Your task to perform on an android device: open sync settings in chrome Image 0: 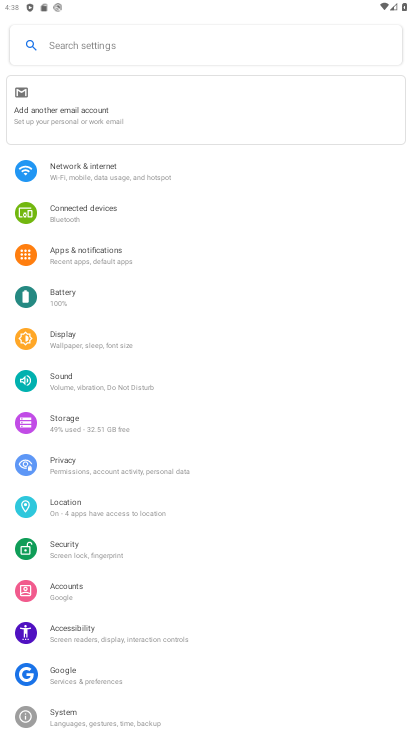
Step 0: press home button
Your task to perform on an android device: open sync settings in chrome Image 1: 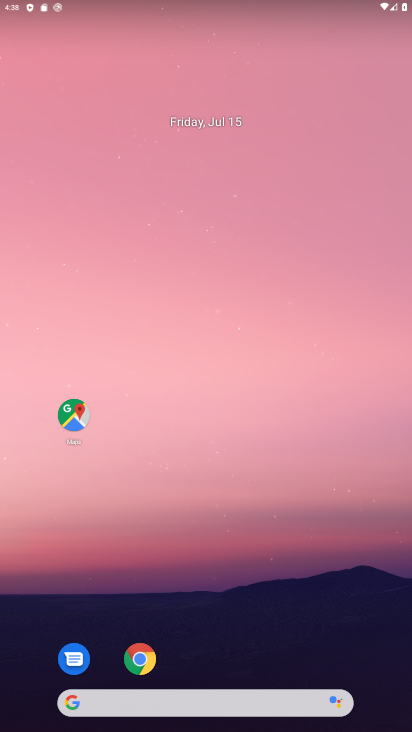
Step 1: click (145, 659)
Your task to perform on an android device: open sync settings in chrome Image 2: 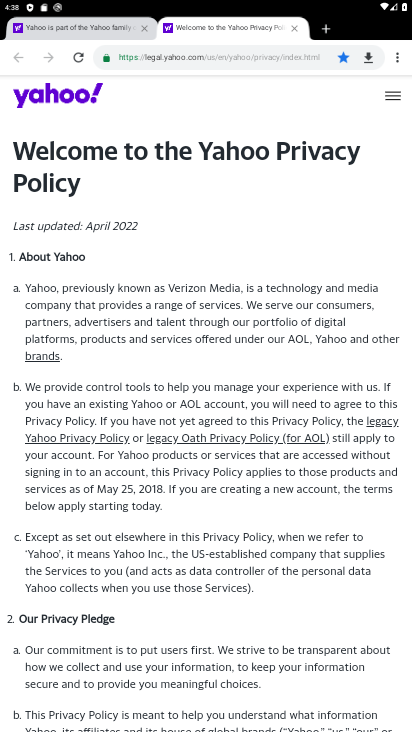
Step 2: click (393, 63)
Your task to perform on an android device: open sync settings in chrome Image 3: 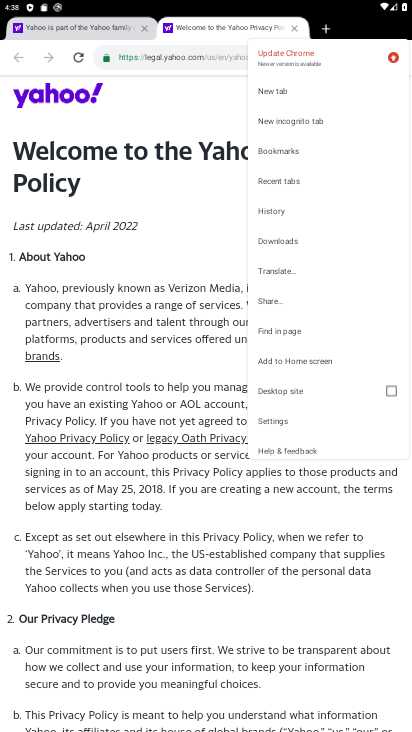
Step 3: click (278, 418)
Your task to perform on an android device: open sync settings in chrome Image 4: 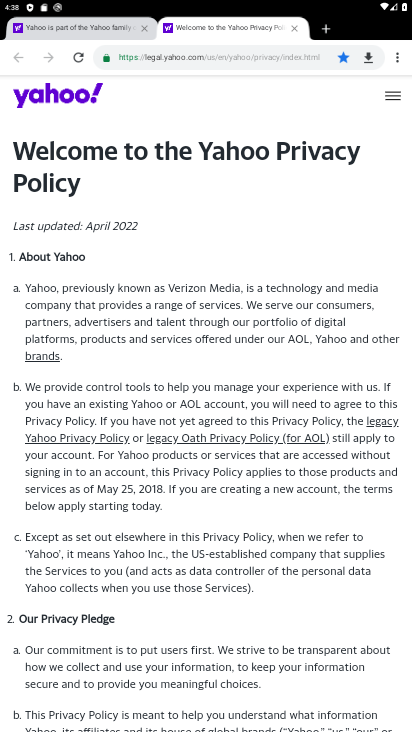
Step 4: click (278, 418)
Your task to perform on an android device: open sync settings in chrome Image 5: 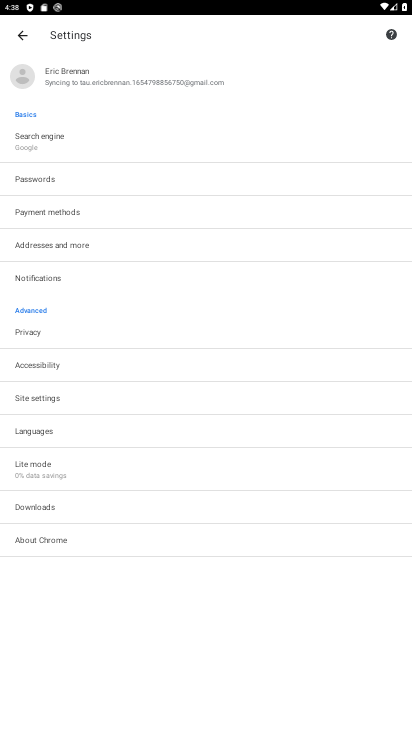
Step 5: click (102, 99)
Your task to perform on an android device: open sync settings in chrome Image 6: 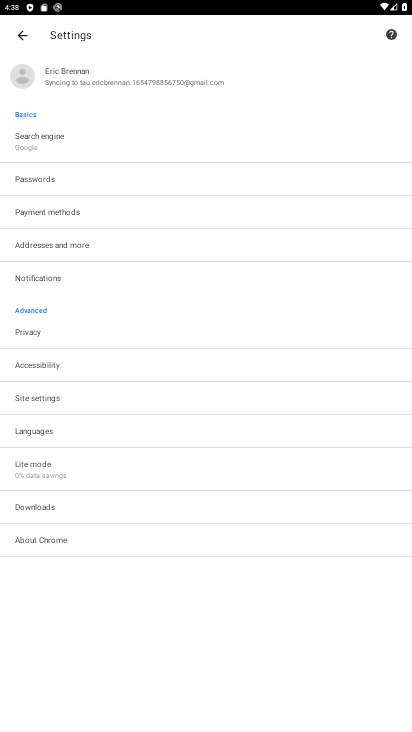
Step 6: click (64, 138)
Your task to perform on an android device: open sync settings in chrome Image 7: 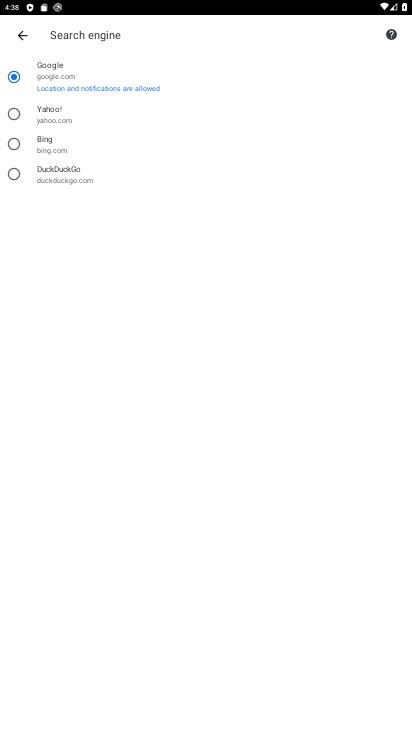
Step 7: click (26, 45)
Your task to perform on an android device: open sync settings in chrome Image 8: 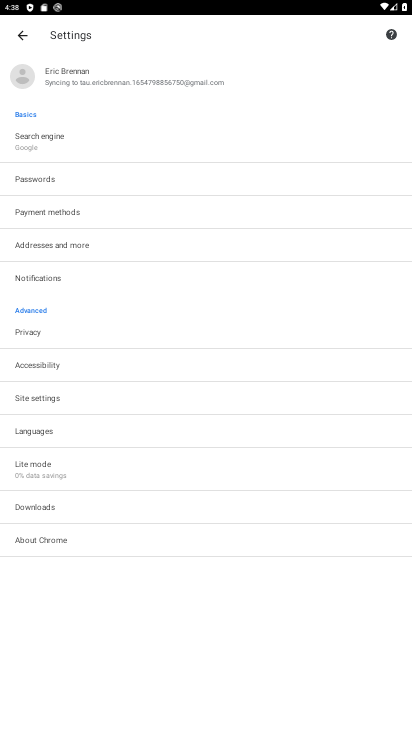
Step 8: click (94, 94)
Your task to perform on an android device: open sync settings in chrome Image 9: 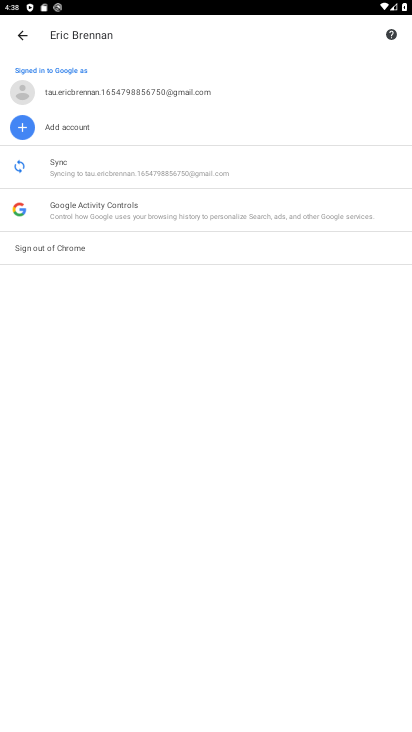
Step 9: click (89, 161)
Your task to perform on an android device: open sync settings in chrome Image 10: 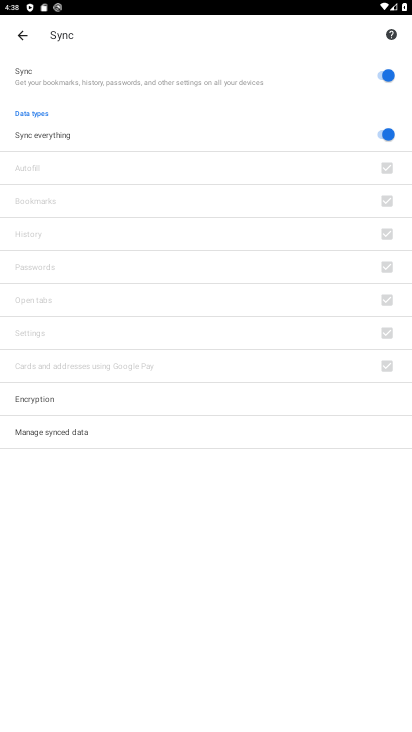
Step 10: task complete